Your task to perform on an android device: What's on the menu at IHOP? Image 0: 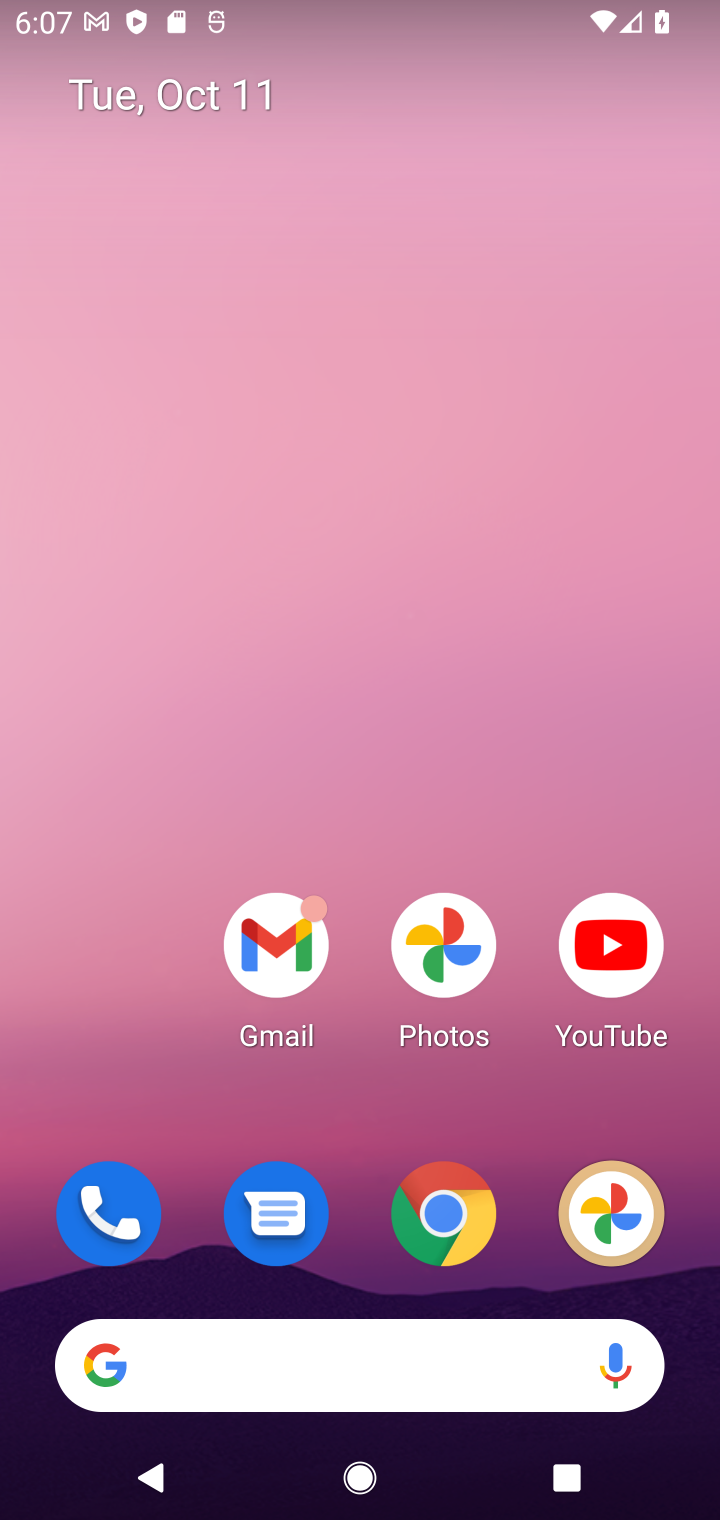
Step 0: click (317, 475)
Your task to perform on an android device: What's on the menu at IHOP? Image 1: 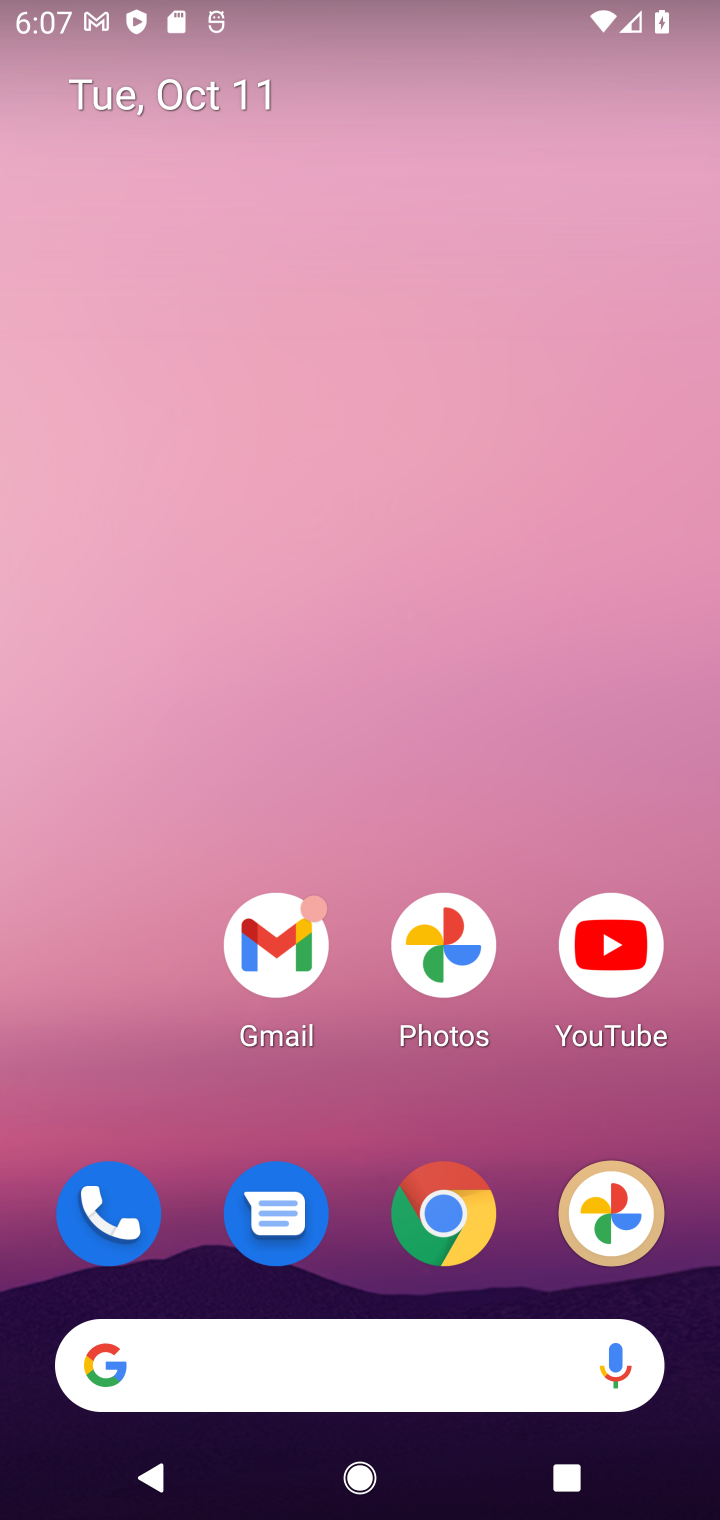
Step 1: drag from (335, 953) to (307, 115)
Your task to perform on an android device: What's on the menu at IHOP? Image 2: 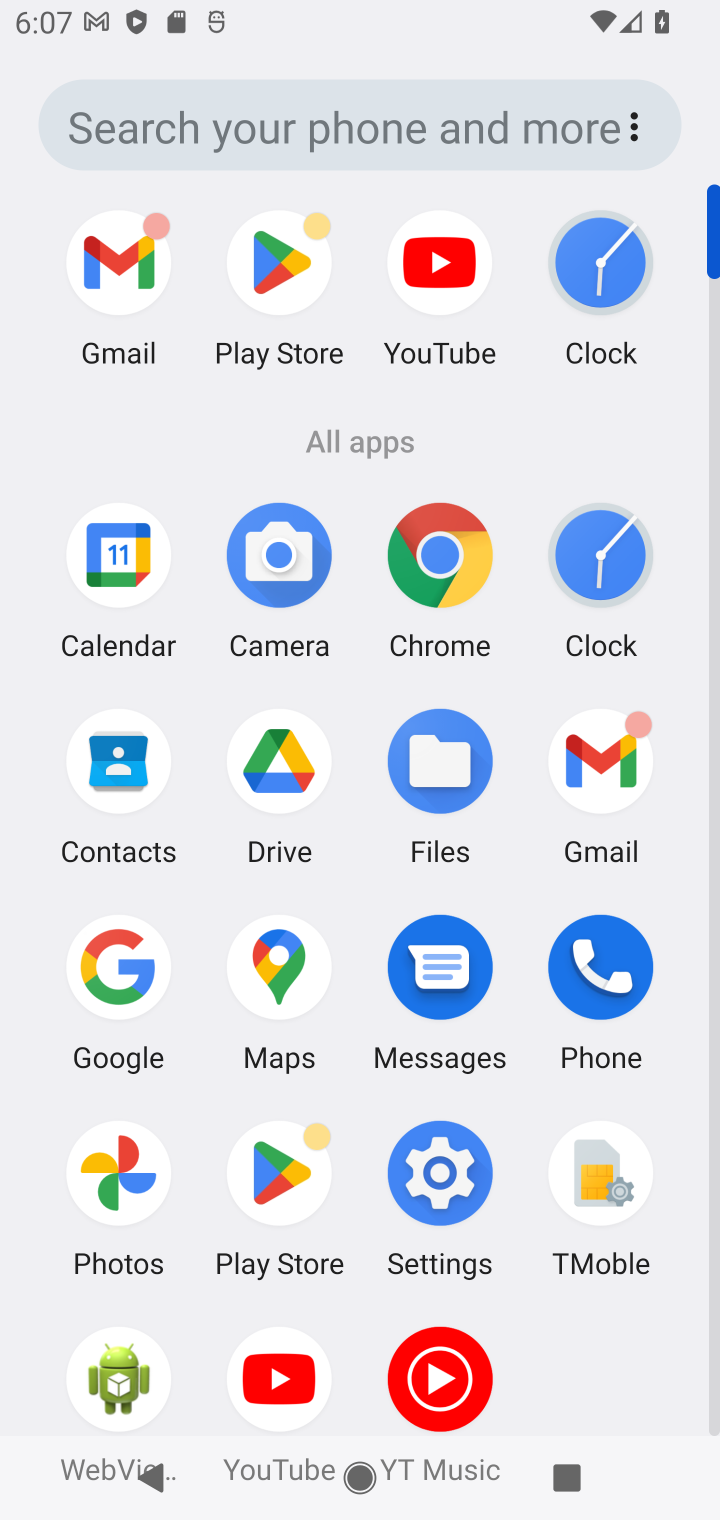
Step 2: click (133, 954)
Your task to perform on an android device: What's on the menu at IHOP? Image 3: 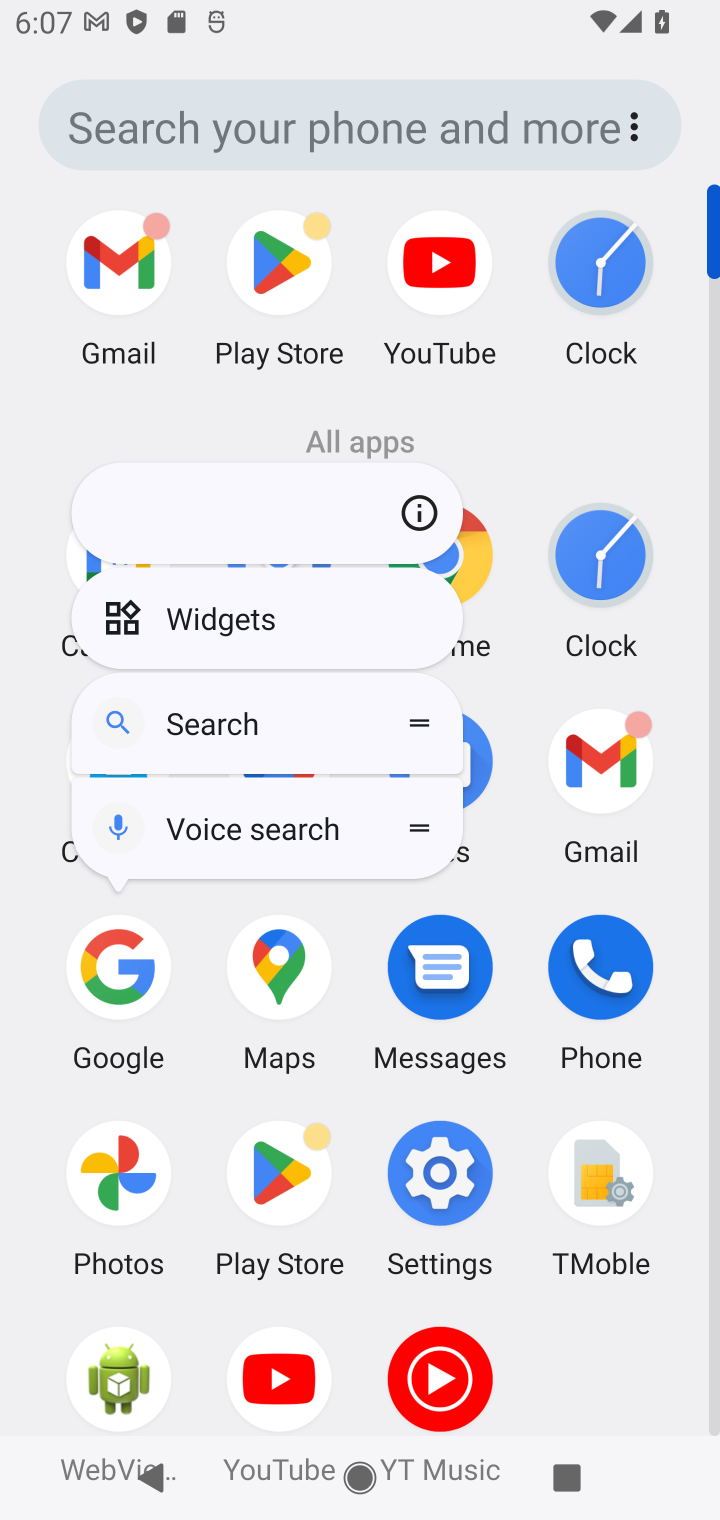
Step 3: click (99, 950)
Your task to perform on an android device: What's on the menu at IHOP? Image 4: 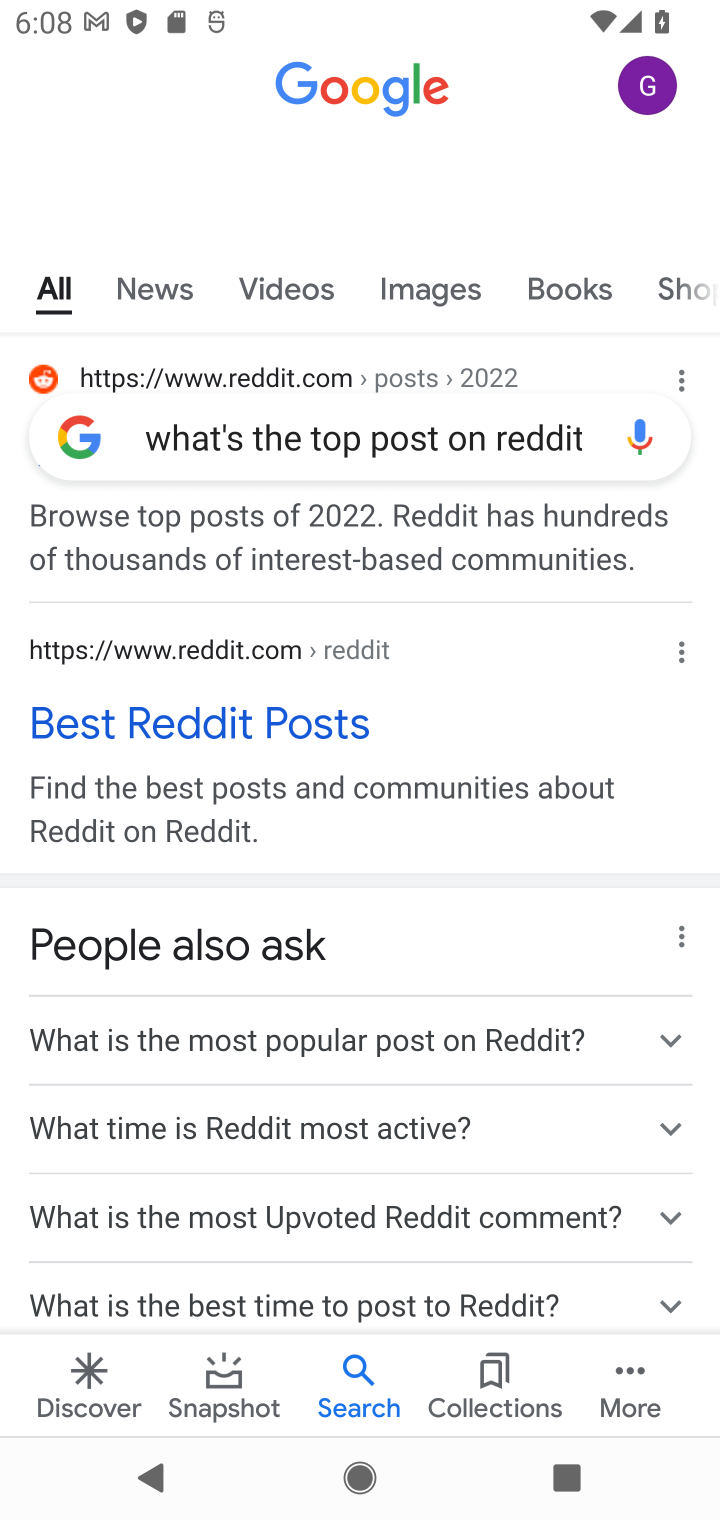
Step 4: click (339, 421)
Your task to perform on an android device: What's on the menu at IHOP? Image 5: 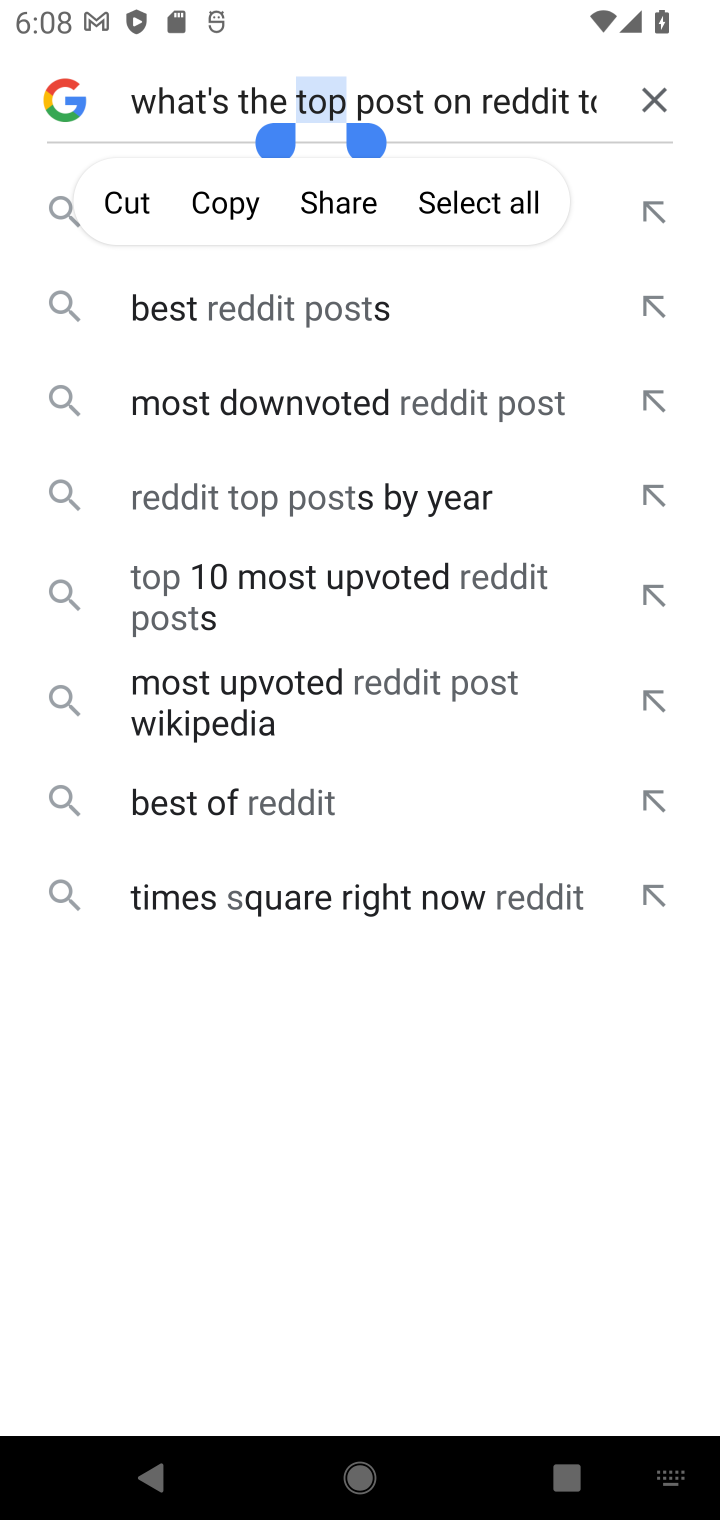
Step 5: click (641, 98)
Your task to perform on an android device: What's on the menu at IHOP? Image 6: 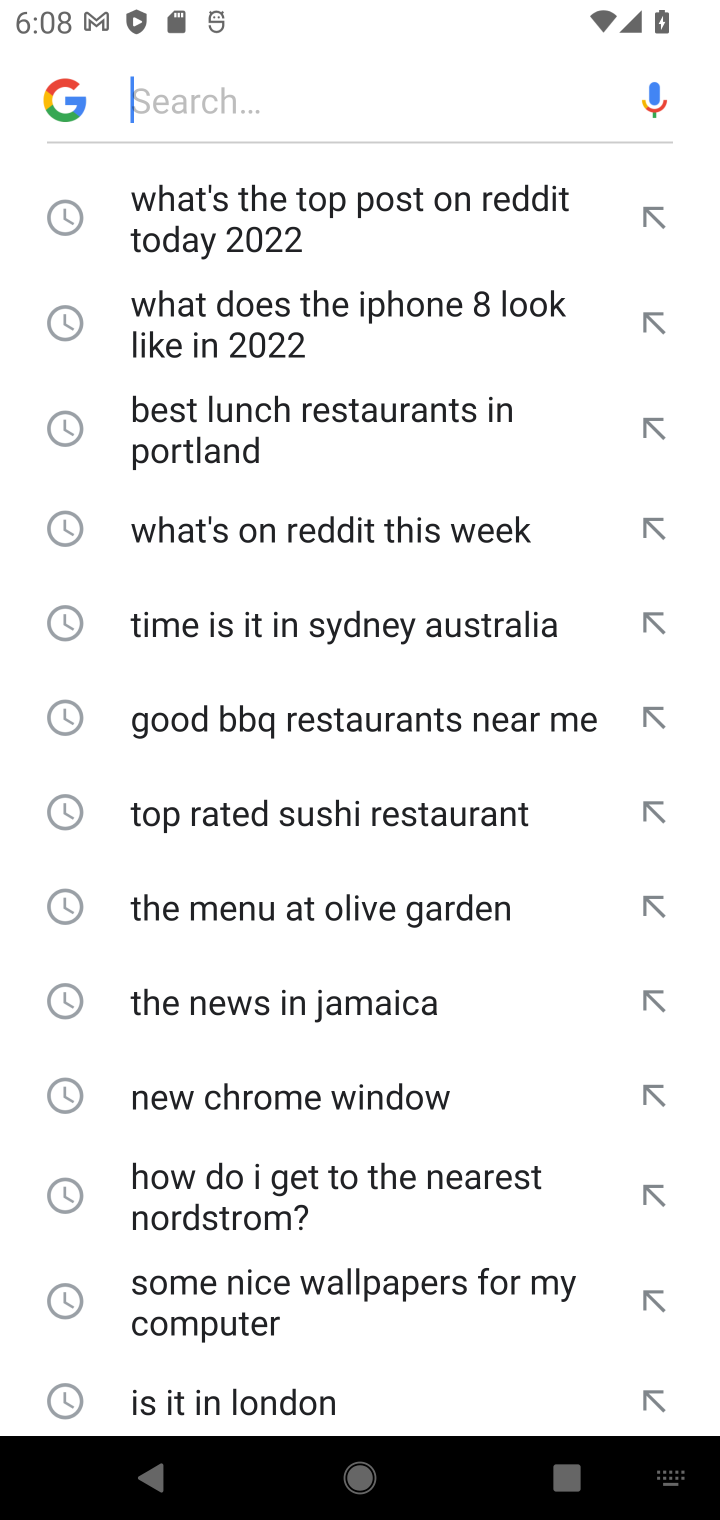
Step 6: click (372, 77)
Your task to perform on an android device: What's on the menu at IHOP? Image 7: 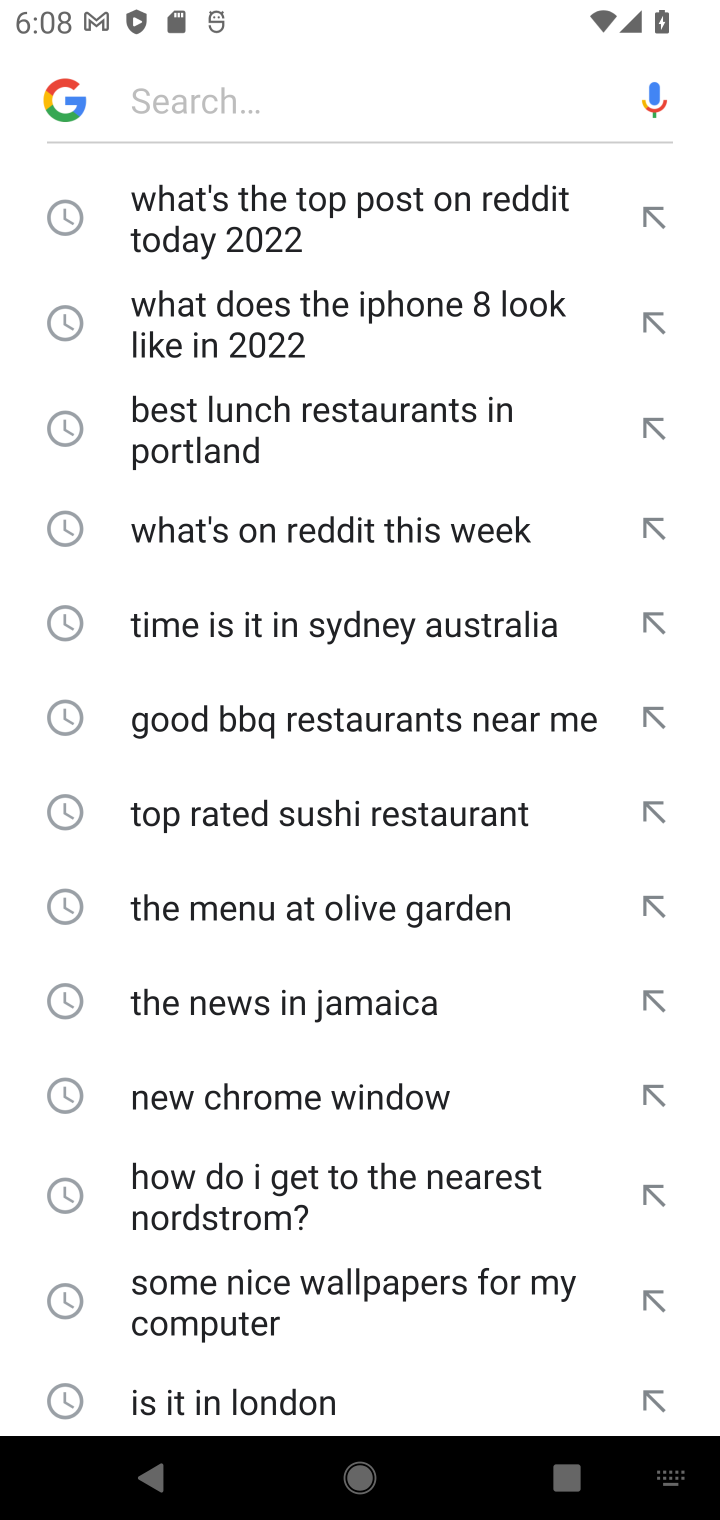
Step 7: type "What's on the menu at IHOP? "
Your task to perform on an android device: What's on the menu at IHOP? Image 8: 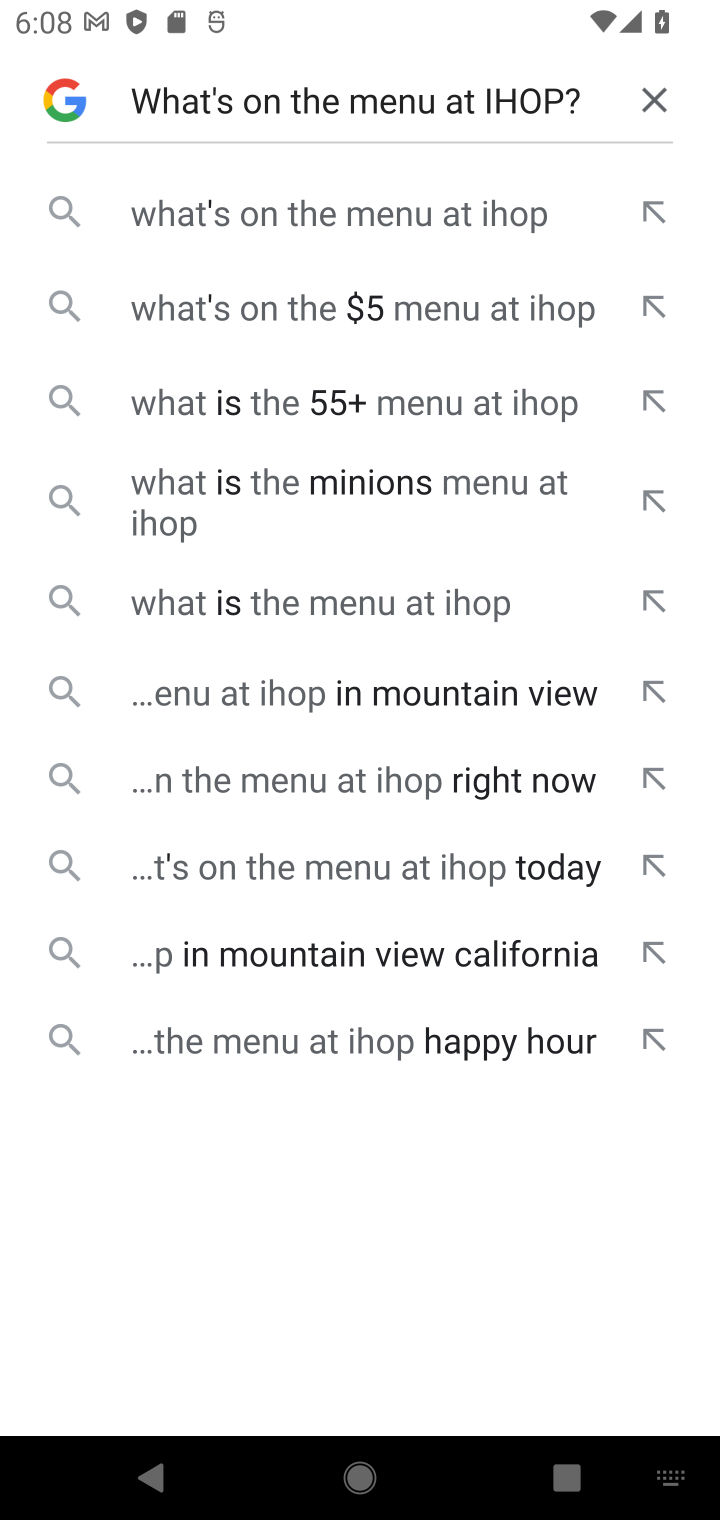
Step 8: click (328, 217)
Your task to perform on an android device: What's on the menu at IHOP? Image 9: 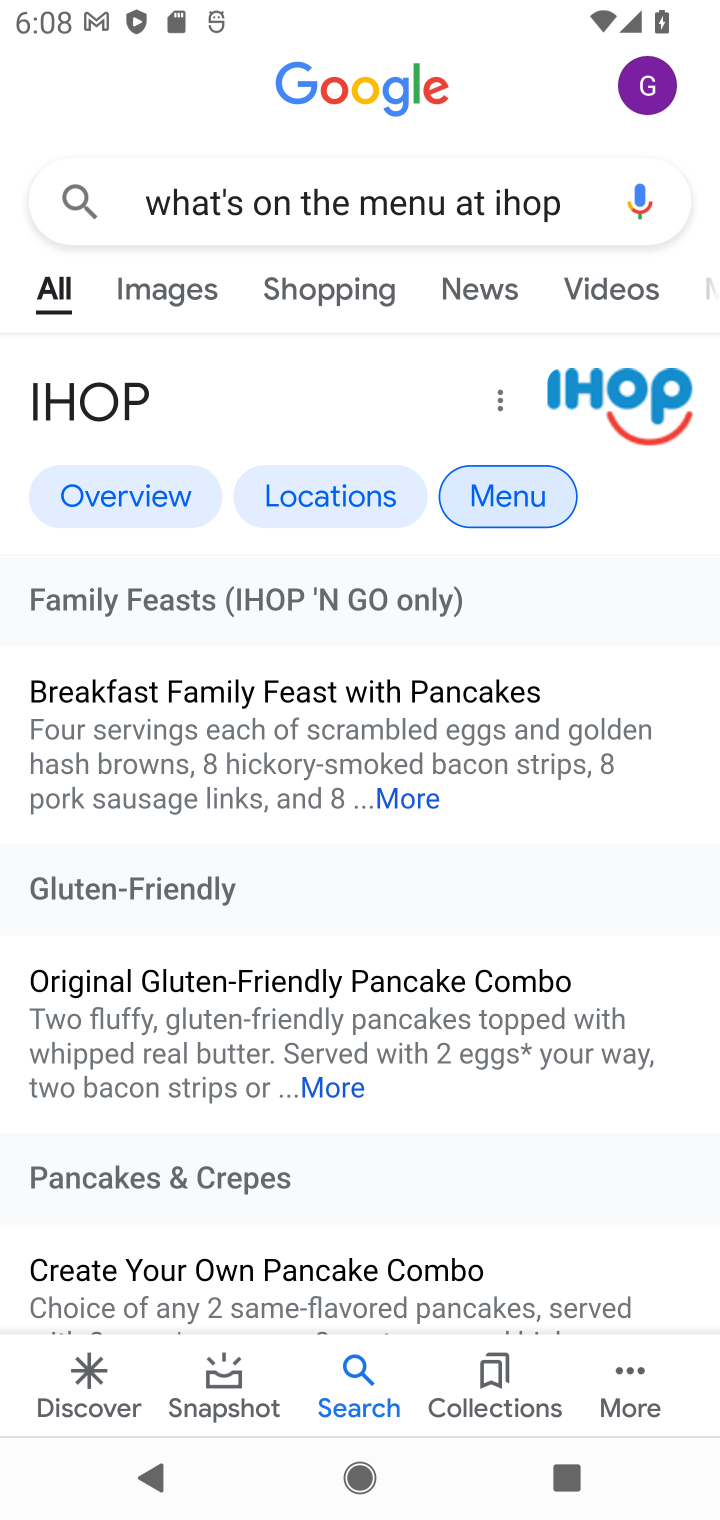
Step 9: drag from (422, 1156) to (435, 629)
Your task to perform on an android device: What's on the menu at IHOP? Image 10: 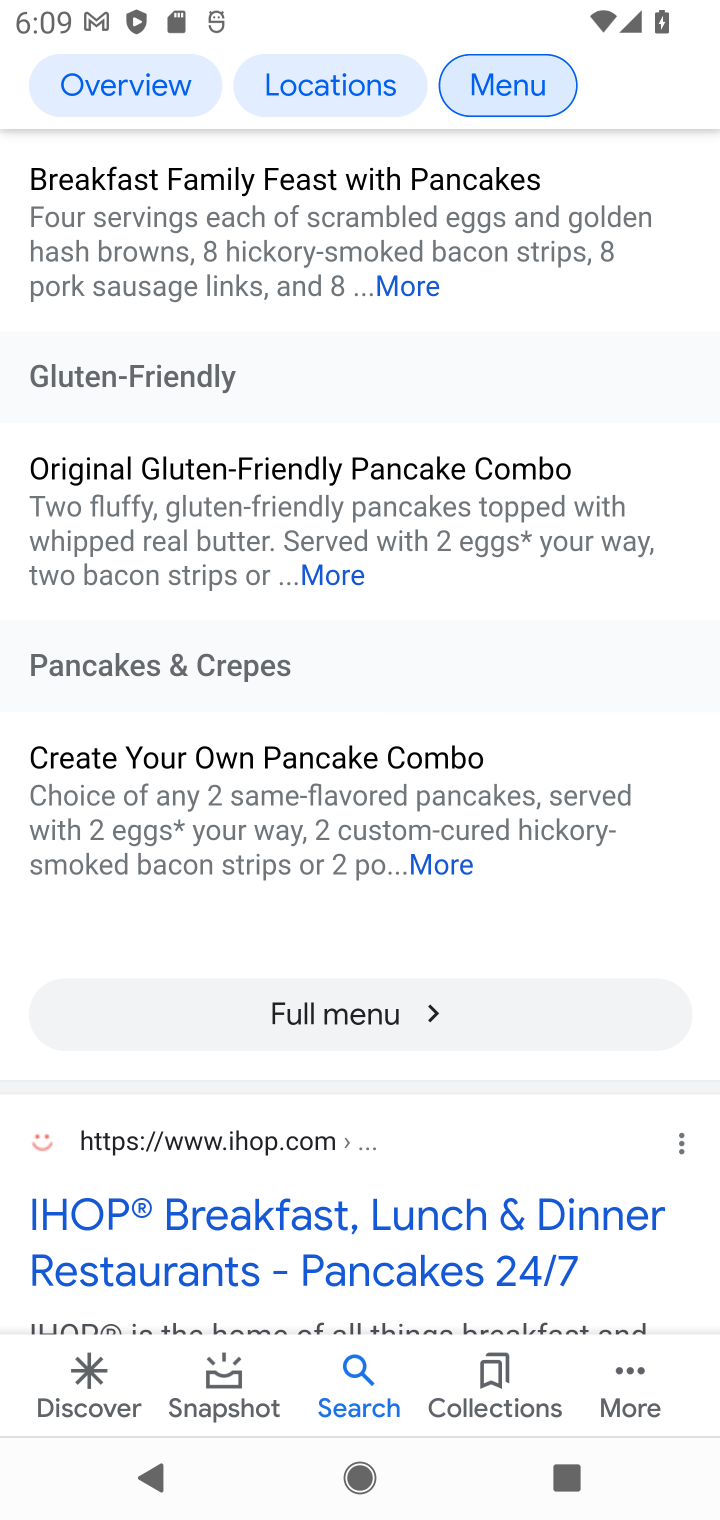
Step 10: drag from (387, 1223) to (432, 728)
Your task to perform on an android device: What's on the menu at IHOP? Image 11: 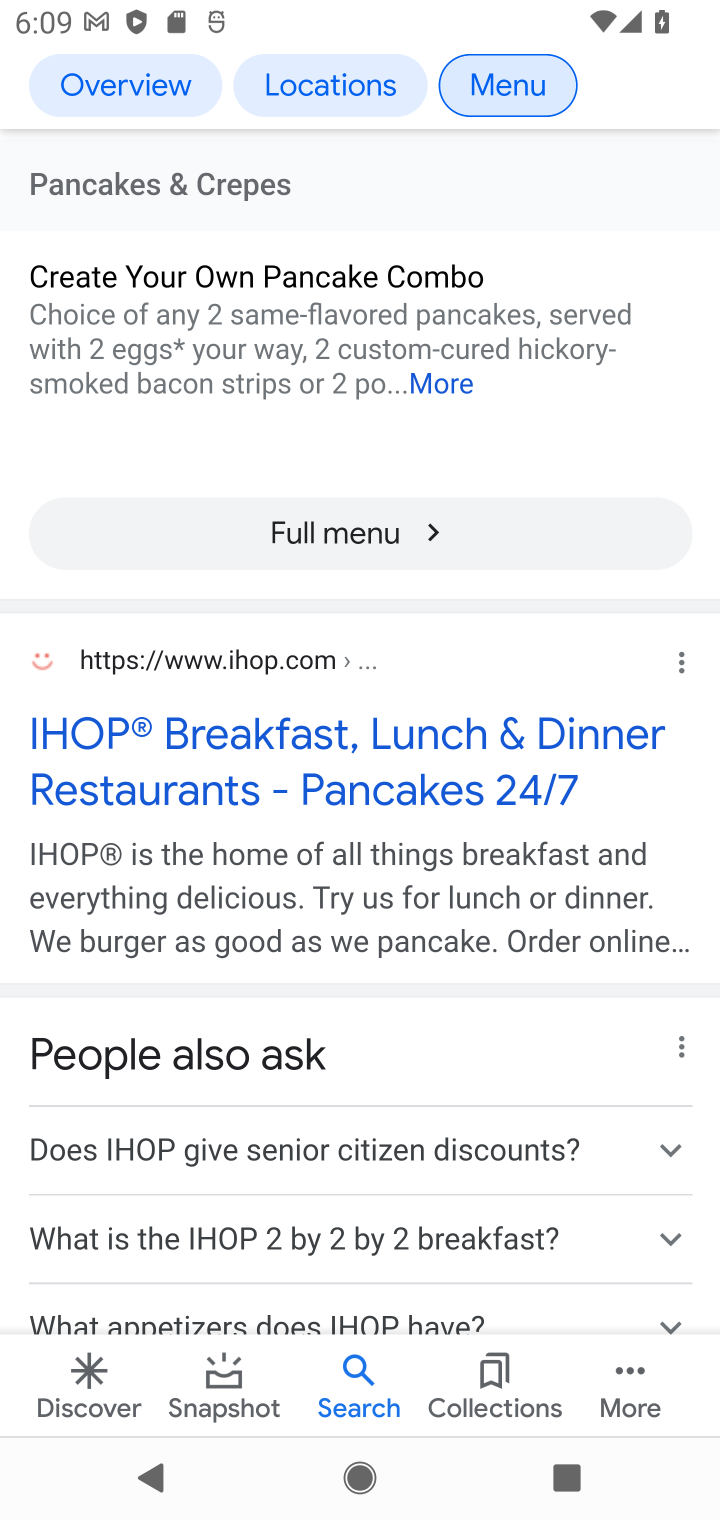
Step 11: click (385, 745)
Your task to perform on an android device: What's on the menu at IHOP? Image 12: 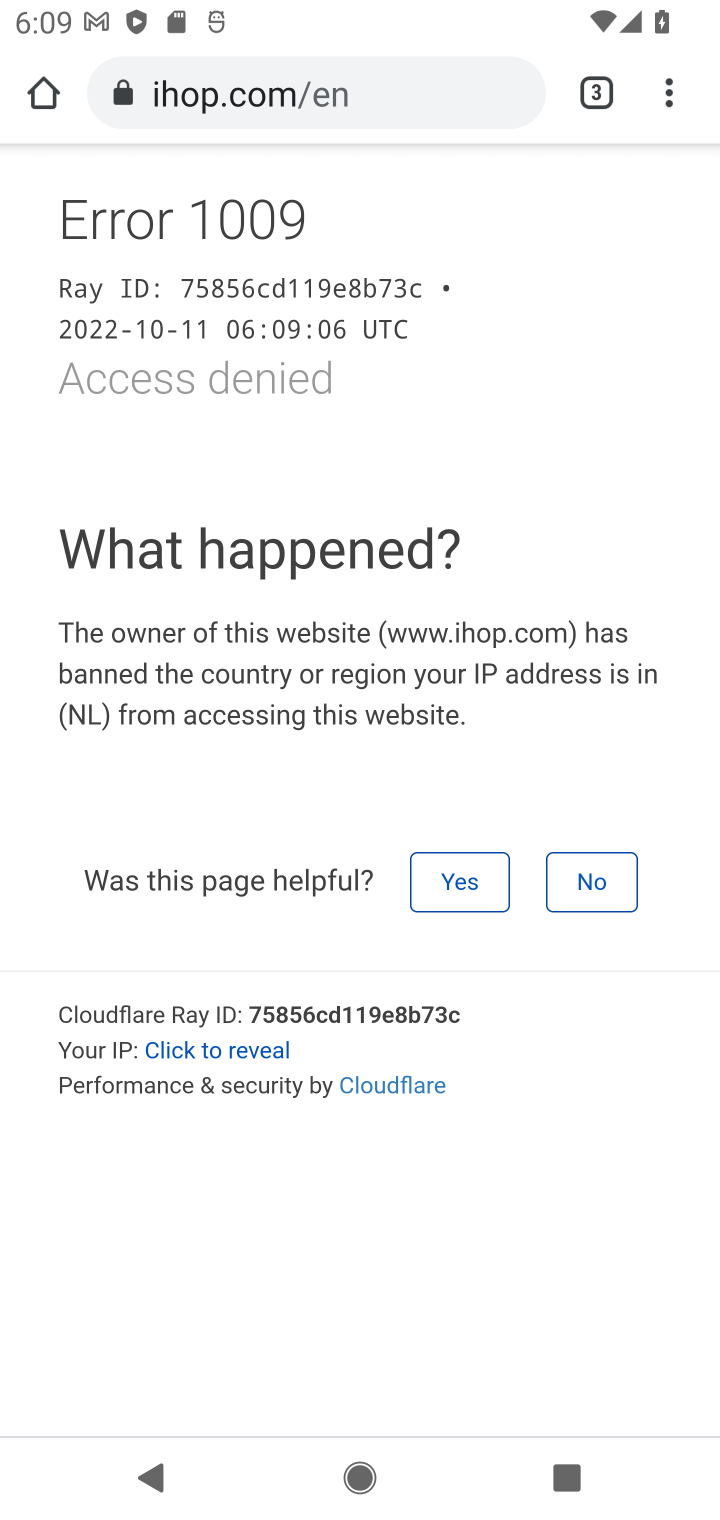
Step 12: press back button
Your task to perform on an android device: What's on the menu at IHOP? Image 13: 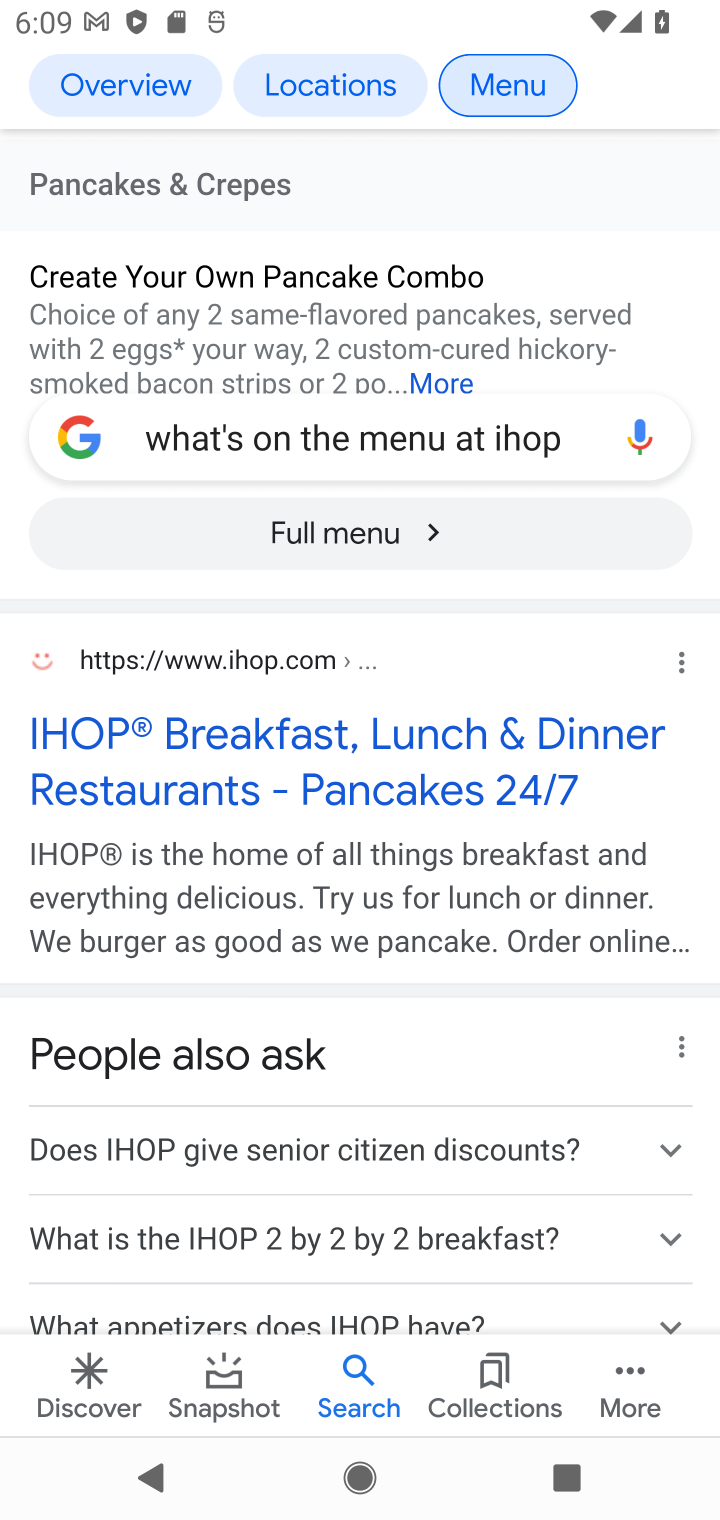
Step 13: drag from (532, 1161) to (537, 357)
Your task to perform on an android device: What's on the menu at IHOP? Image 14: 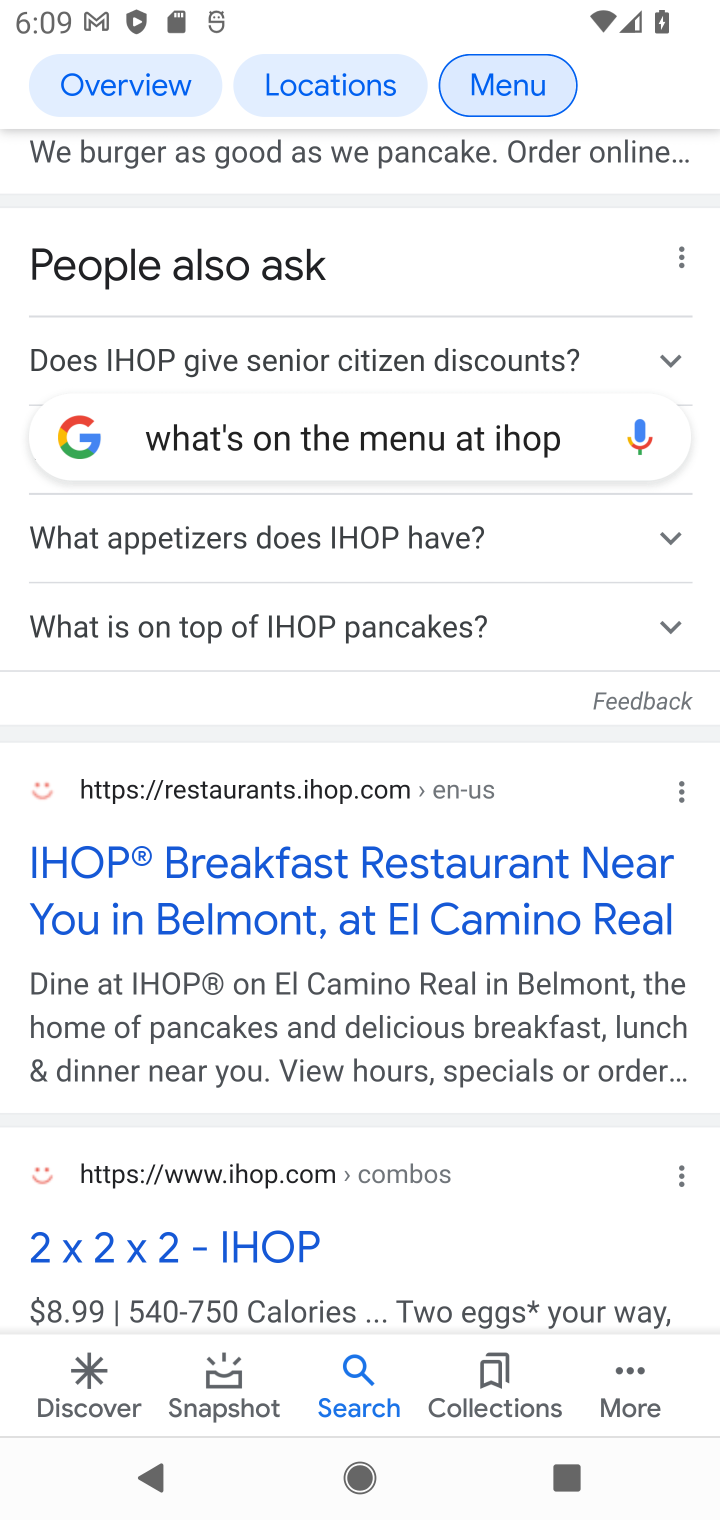
Step 14: click (418, 860)
Your task to perform on an android device: What's on the menu at IHOP? Image 15: 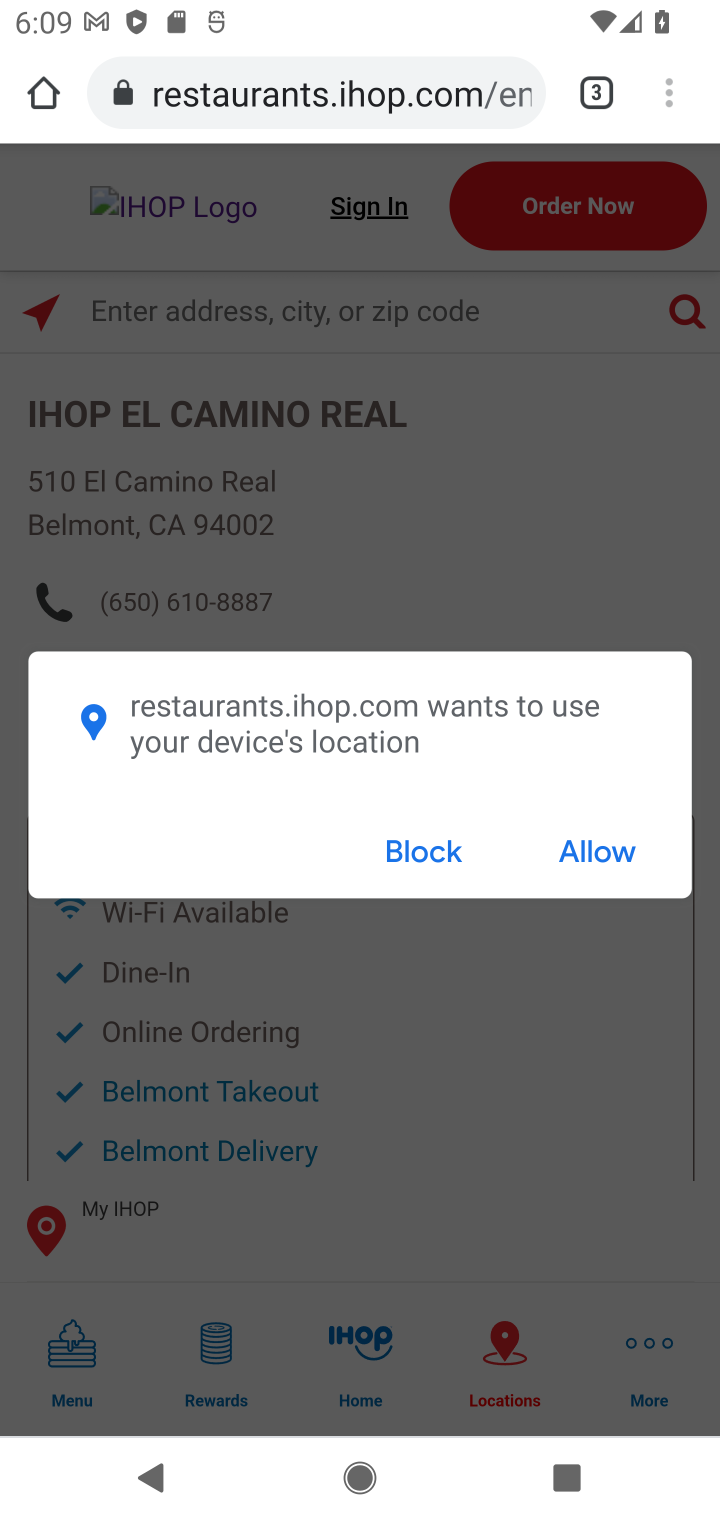
Step 15: click (588, 848)
Your task to perform on an android device: What's on the menu at IHOP? Image 16: 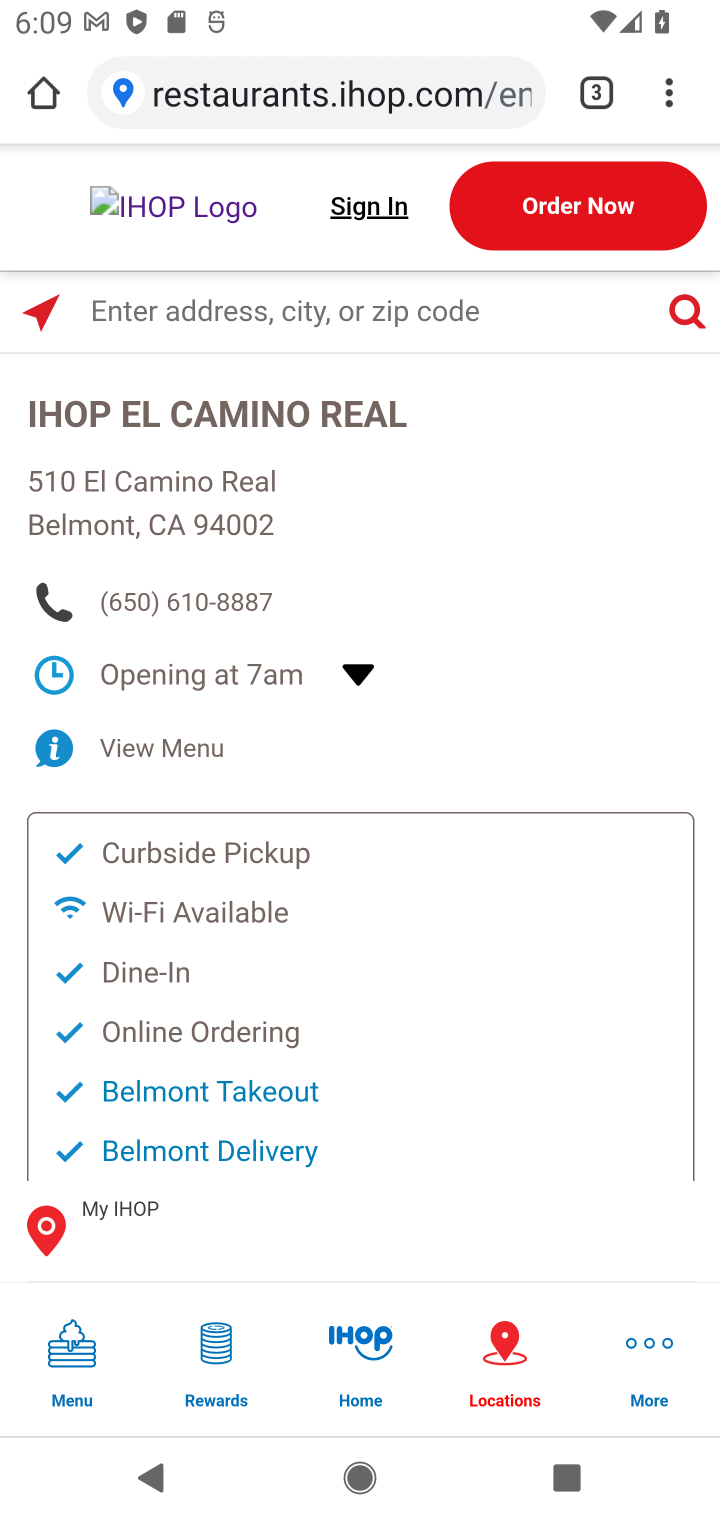
Step 16: press back button
Your task to perform on an android device: What's on the menu at IHOP? Image 17: 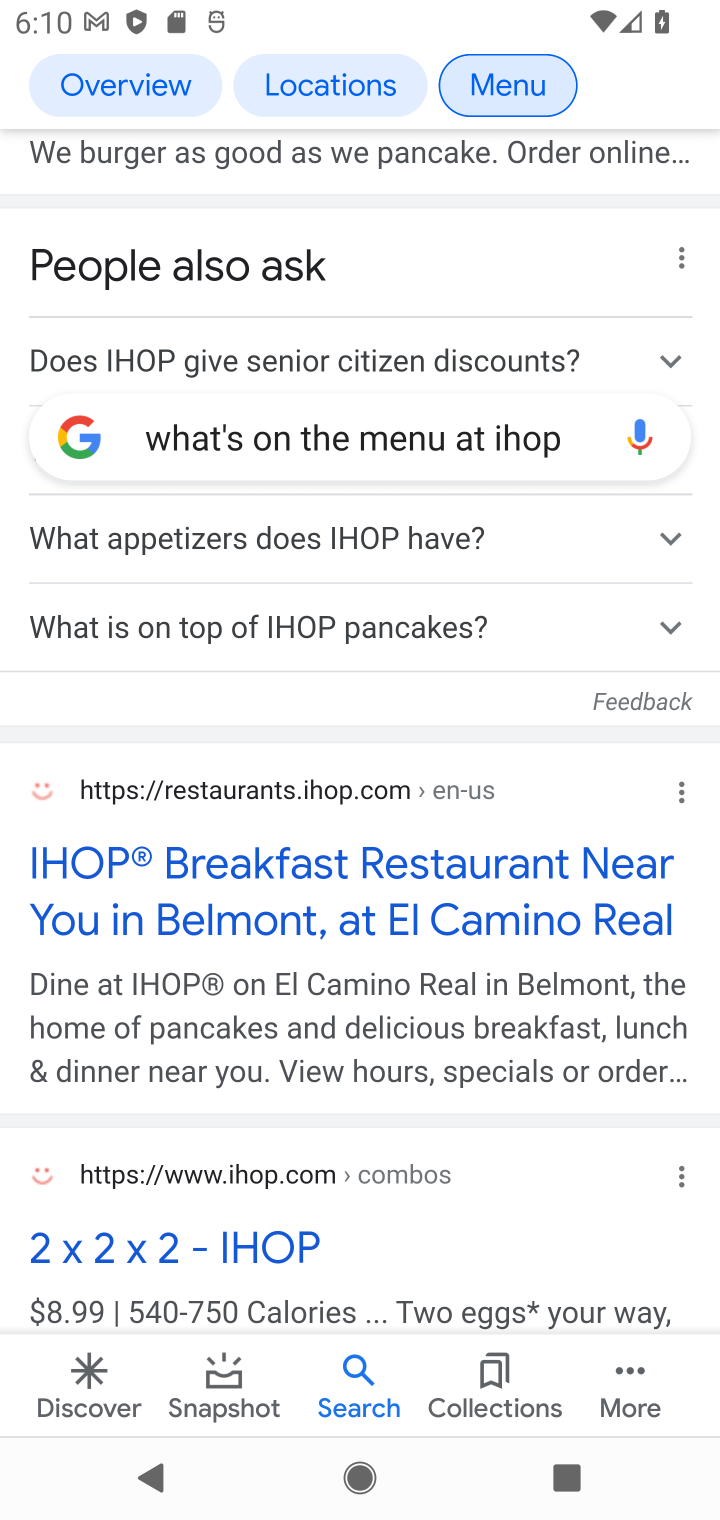
Step 17: drag from (340, 670) to (381, 1261)
Your task to perform on an android device: What's on the menu at IHOP? Image 18: 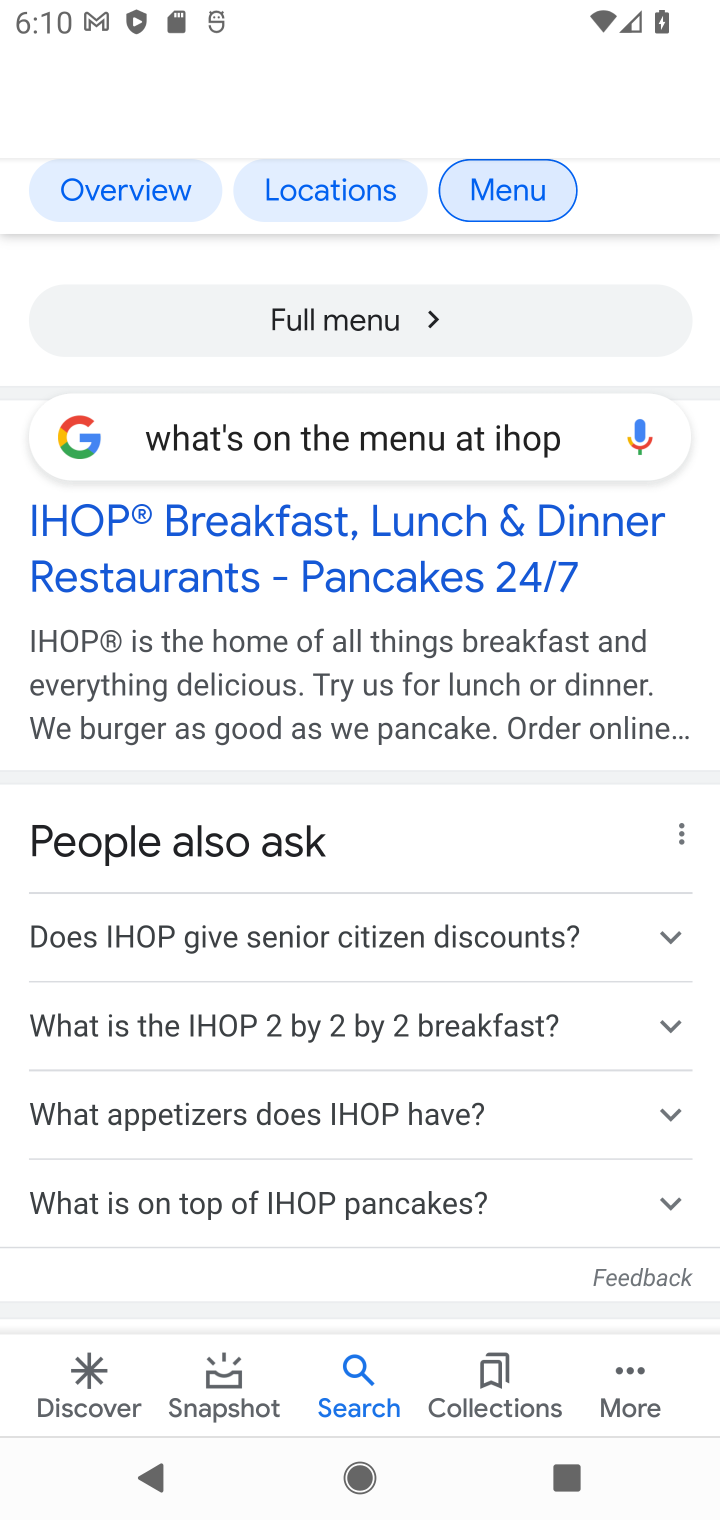
Step 18: click (358, 538)
Your task to perform on an android device: What's on the menu at IHOP? Image 19: 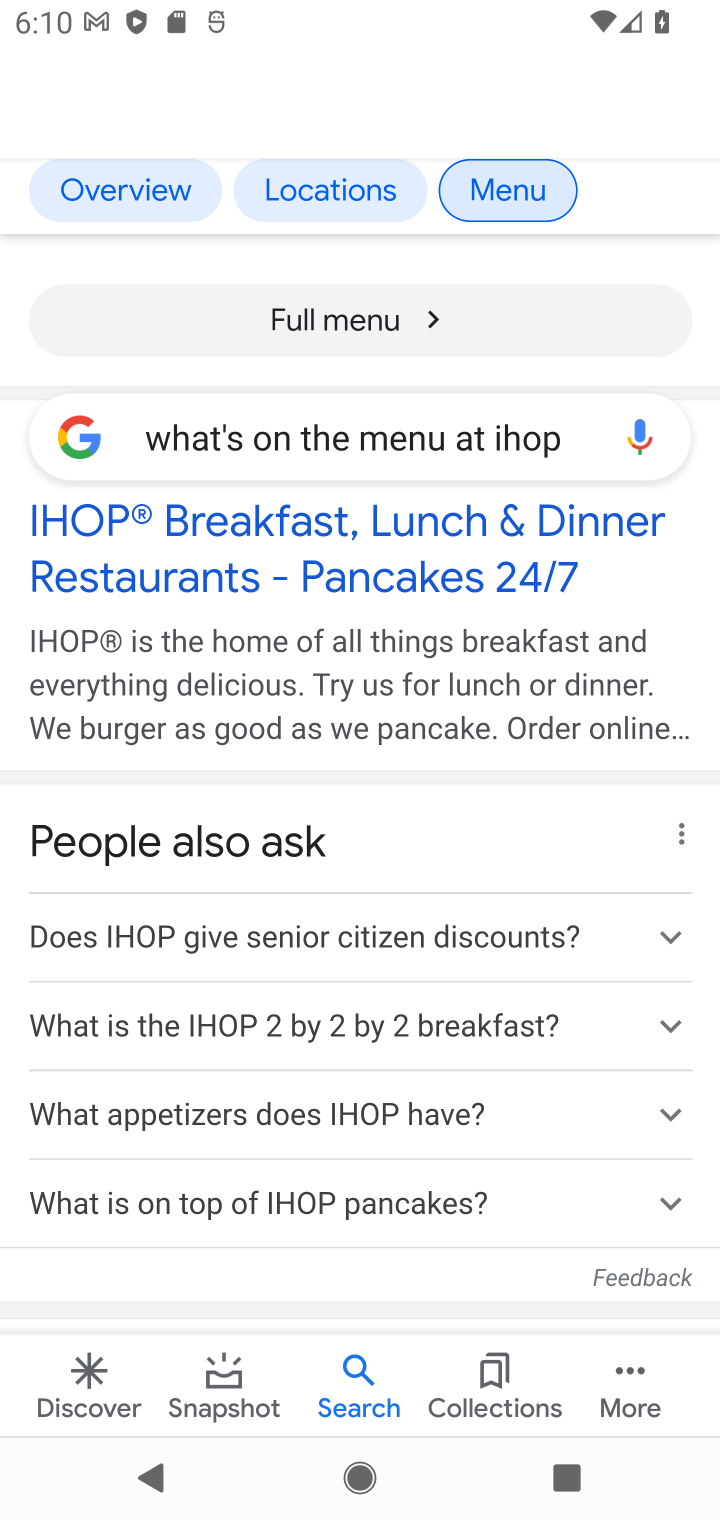
Step 19: click (257, 574)
Your task to perform on an android device: What's on the menu at IHOP? Image 20: 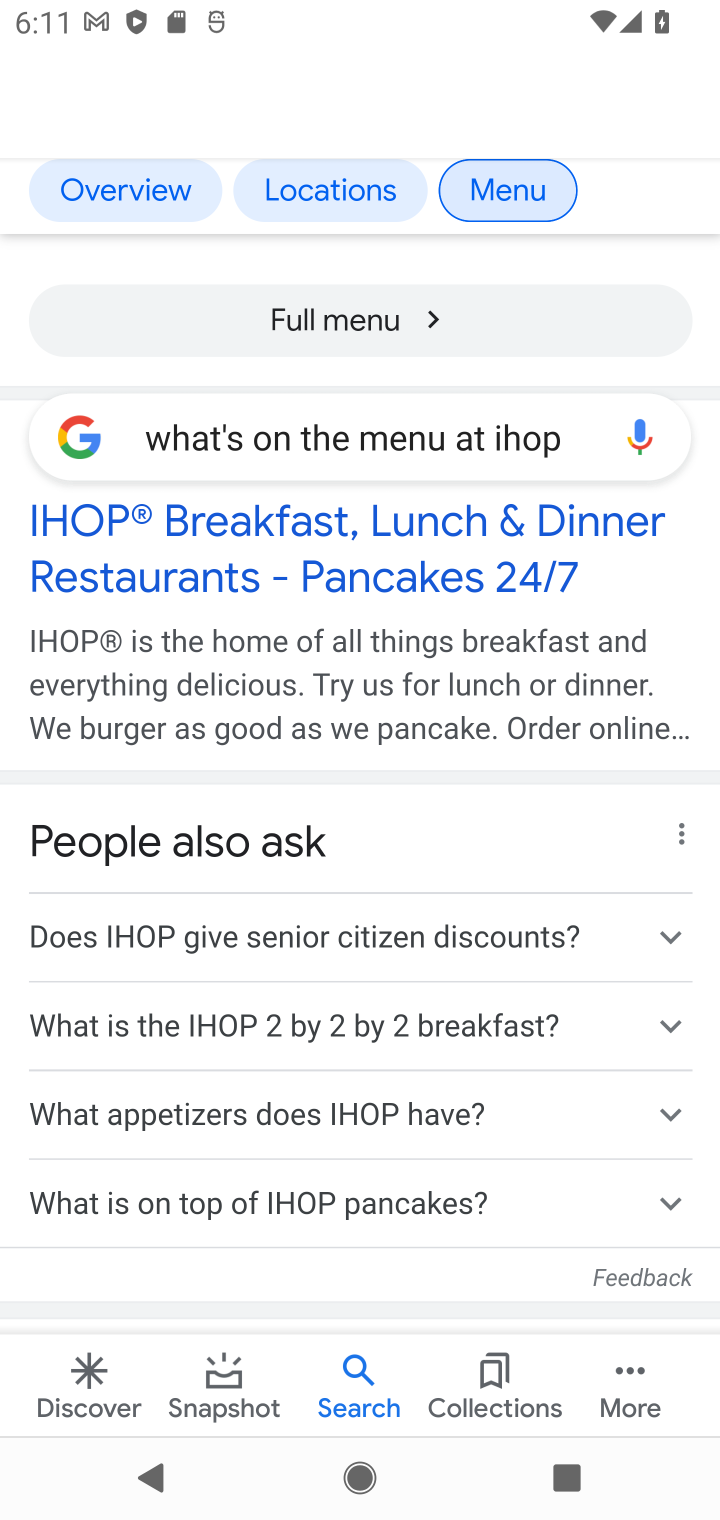
Step 20: click (408, 545)
Your task to perform on an android device: What's on the menu at IHOP? Image 21: 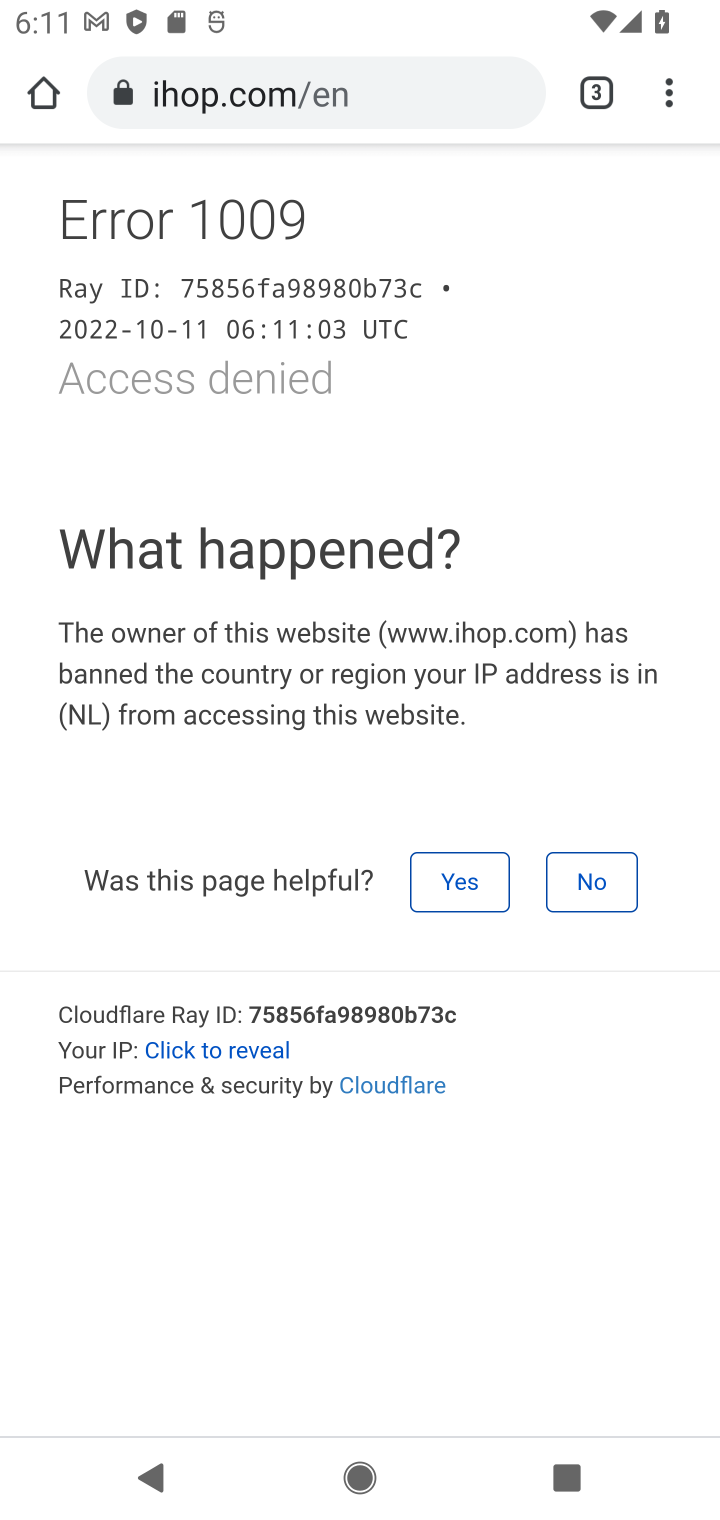
Step 21: press back button
Your task to perform on an android device: What's on the menu at IHOP? Image 22: 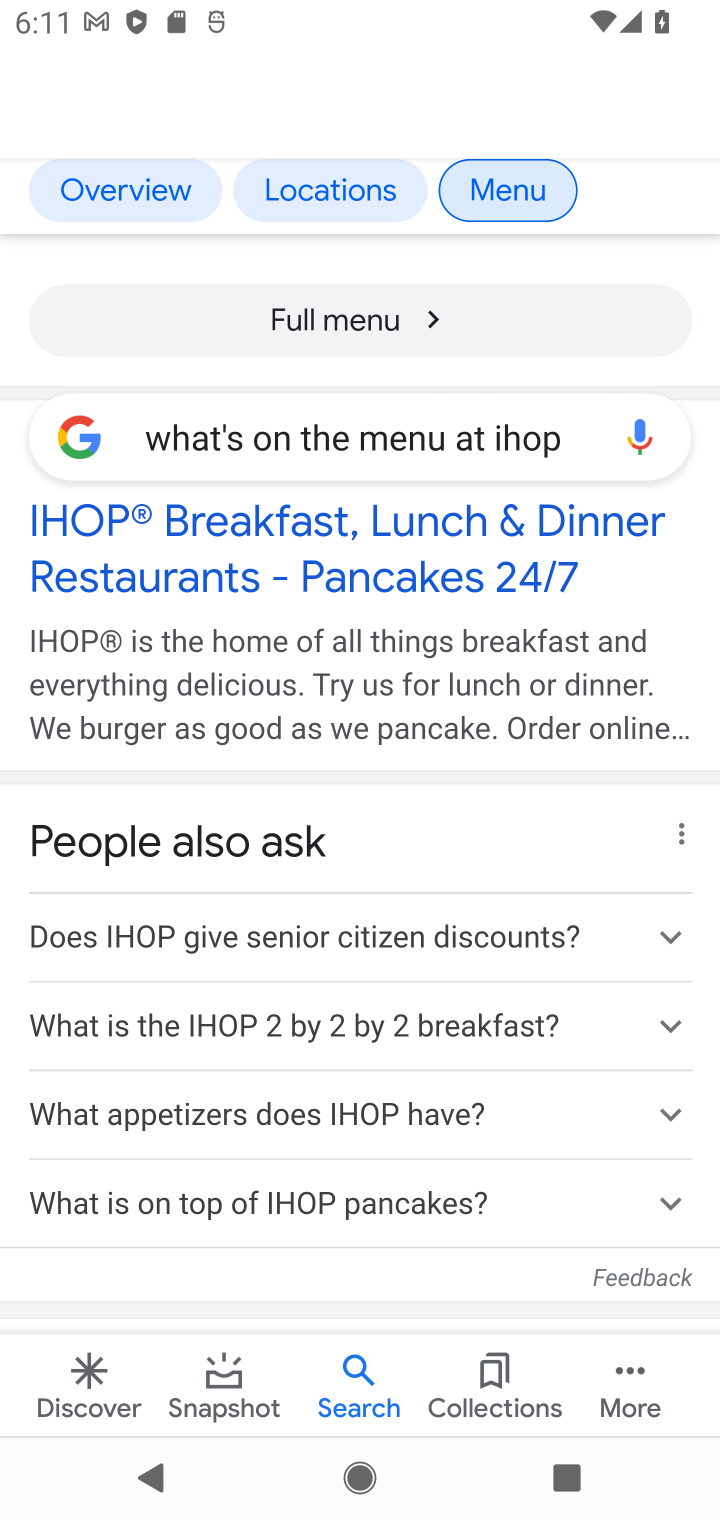
Step 22: click (325, 308)
Your task to perform on an android device: What's on the menu at IHOP? Image 23: 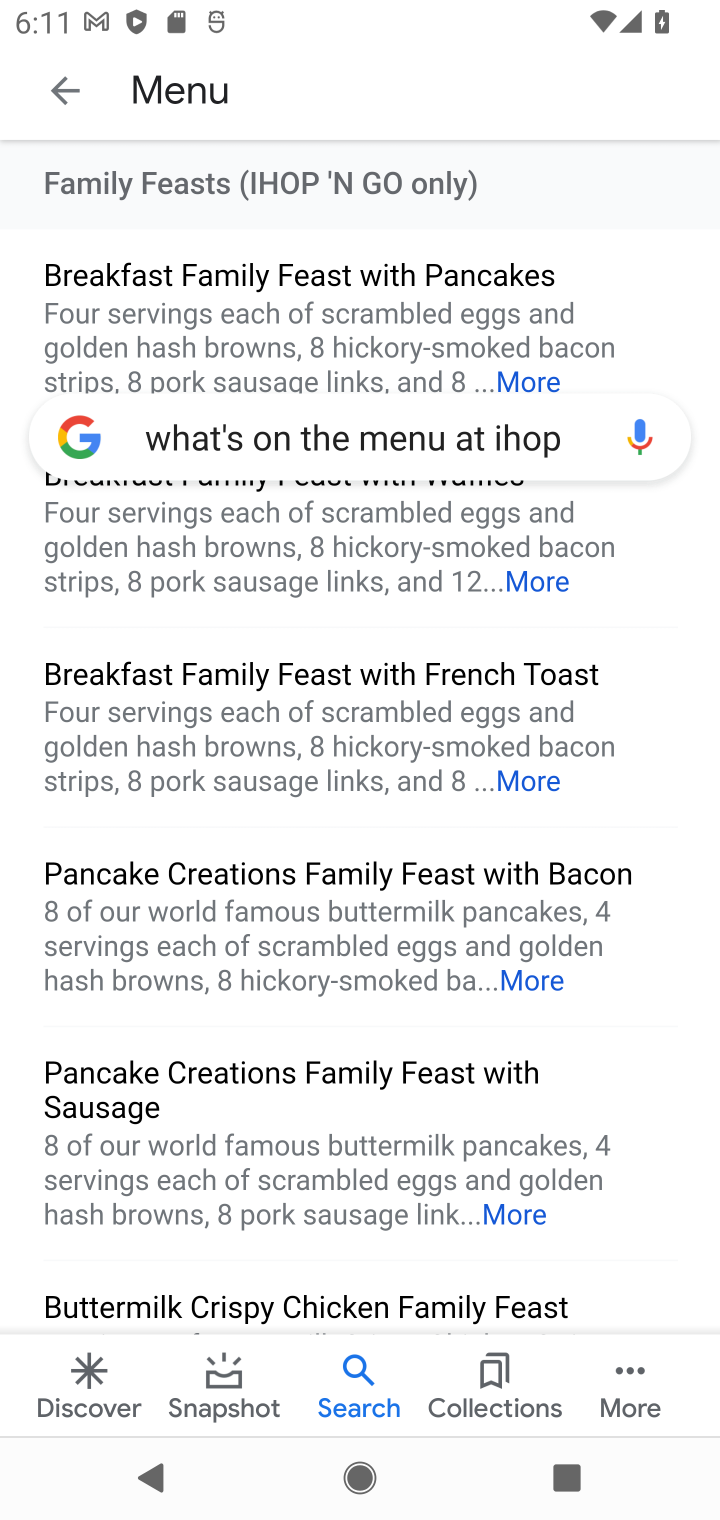
Step 23: task complete